Your task to perform on an android device: open app "Google Pay: Save, Pay, Manage" (install if not already installed) Image 0: 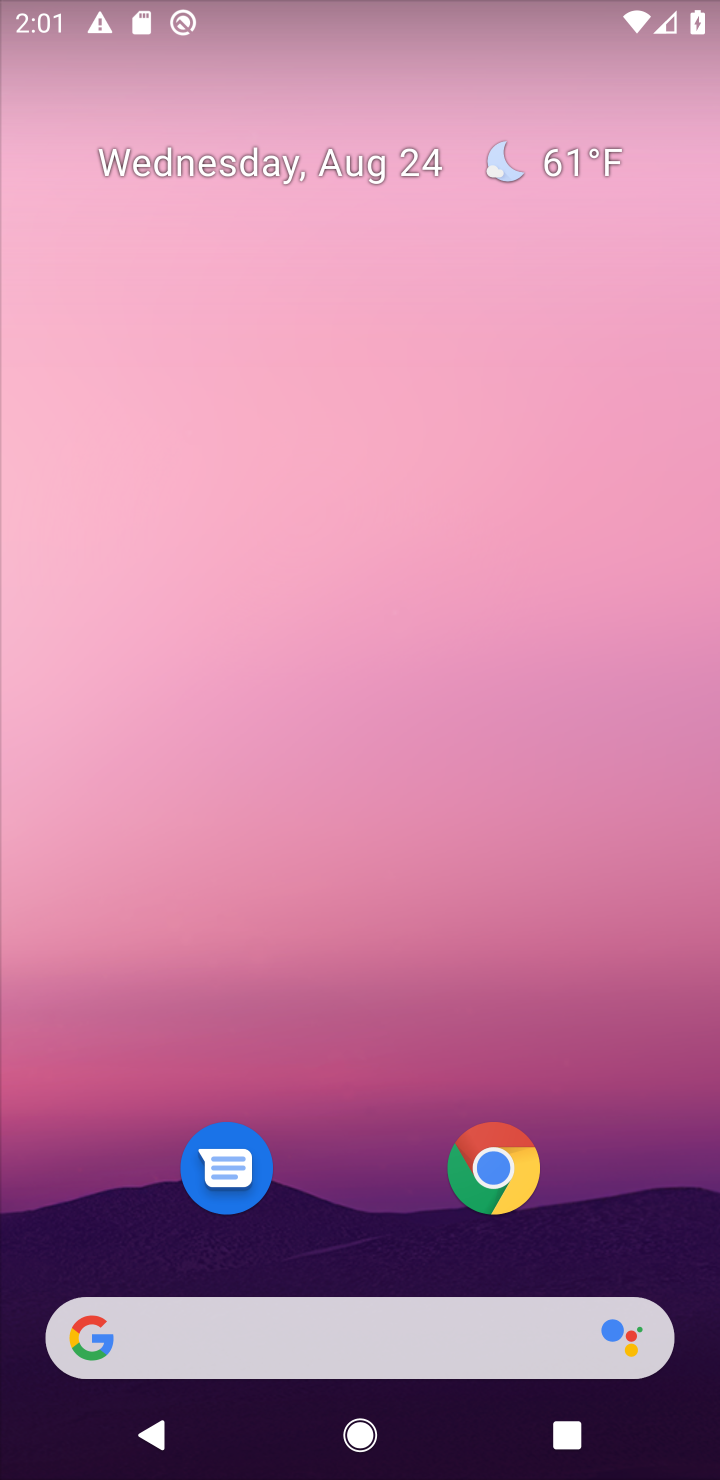
Step 0: drag from (609, 406) to (605, 109)
Your task to perform on an android device: open app "Google Pay: Save, Pay, Manage" (install if not already installed) Image 1: 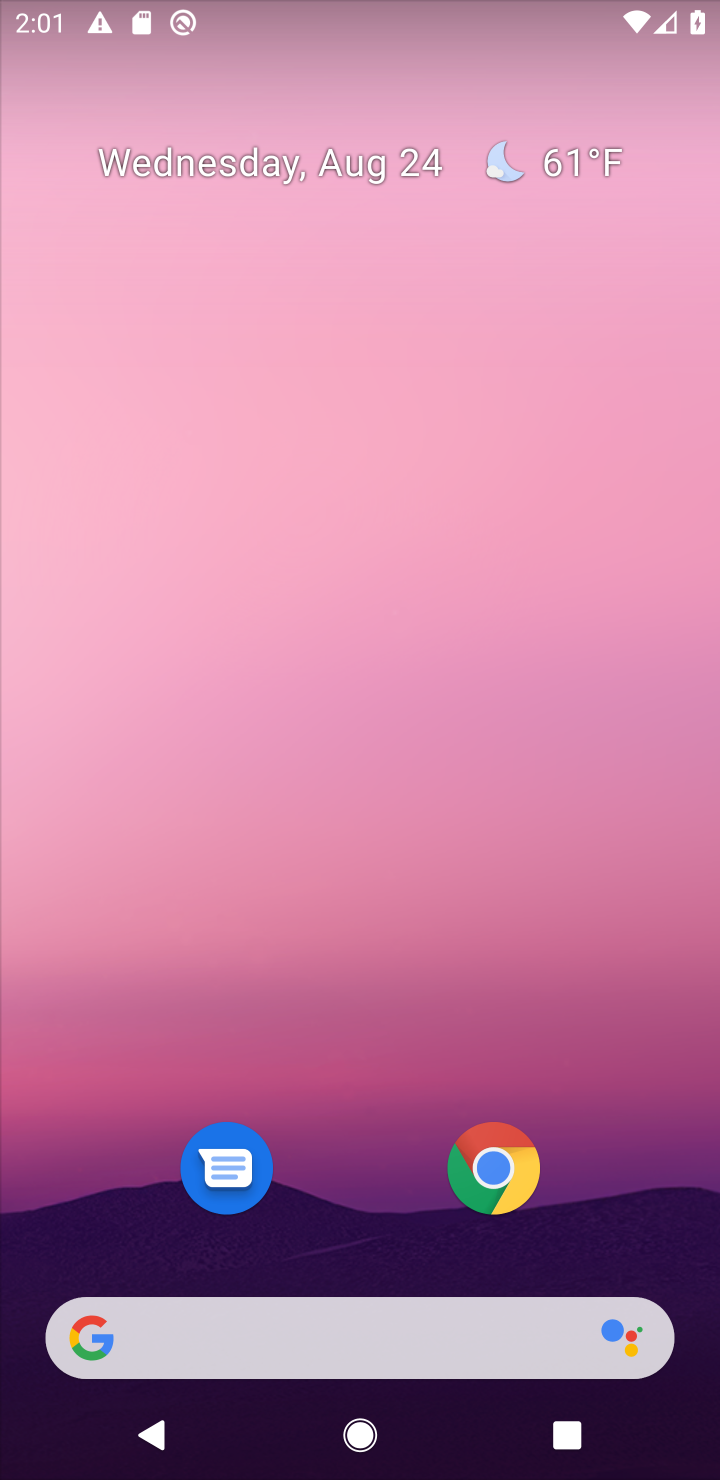
Step 1: drag from (646, 1239) to (597, 283)
Your task to perform on an android device: open app "Google Pay: Save, Pay, Manage" (install if not already installed) Image 2: 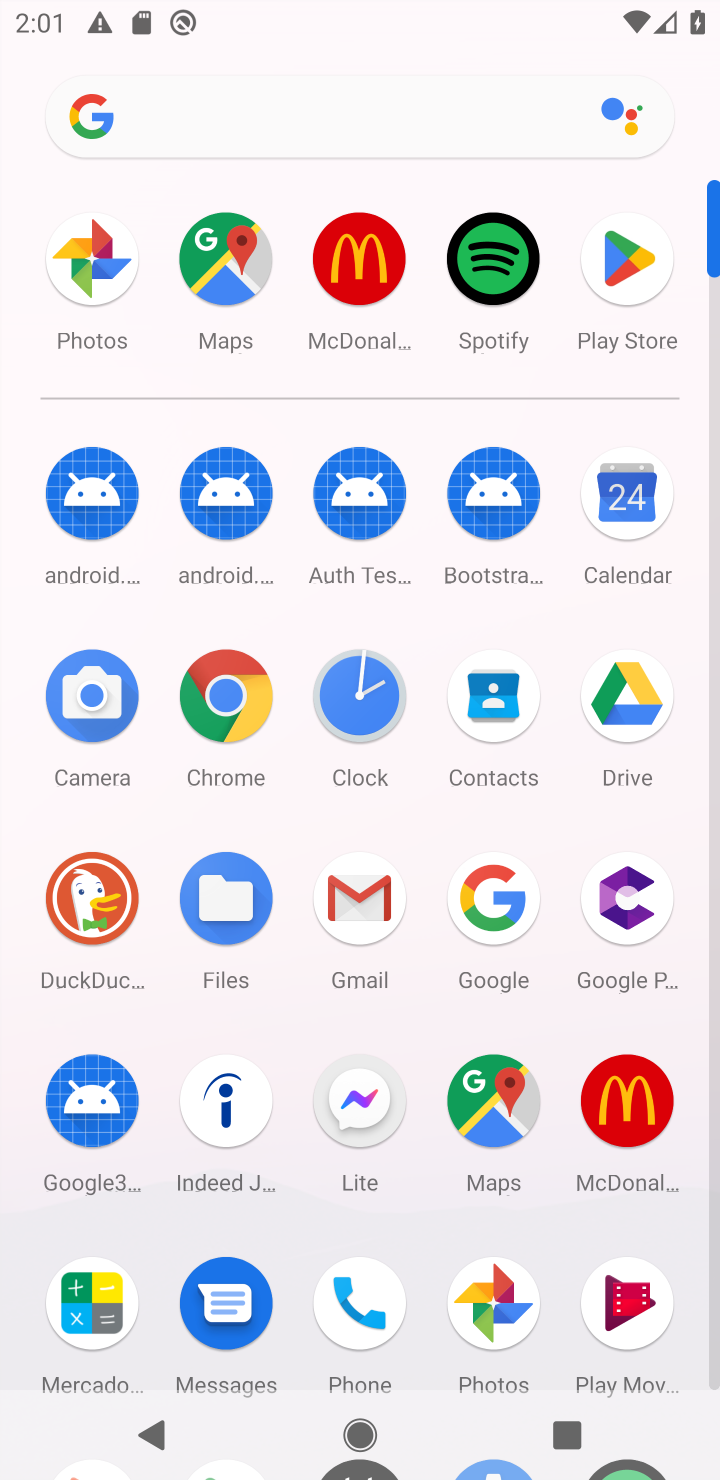
Step 2: click (630, 255)
Your task to perform on an android device: open app "Google Pay: Save, Pay, Manage" (install if not already installed) Image 3: 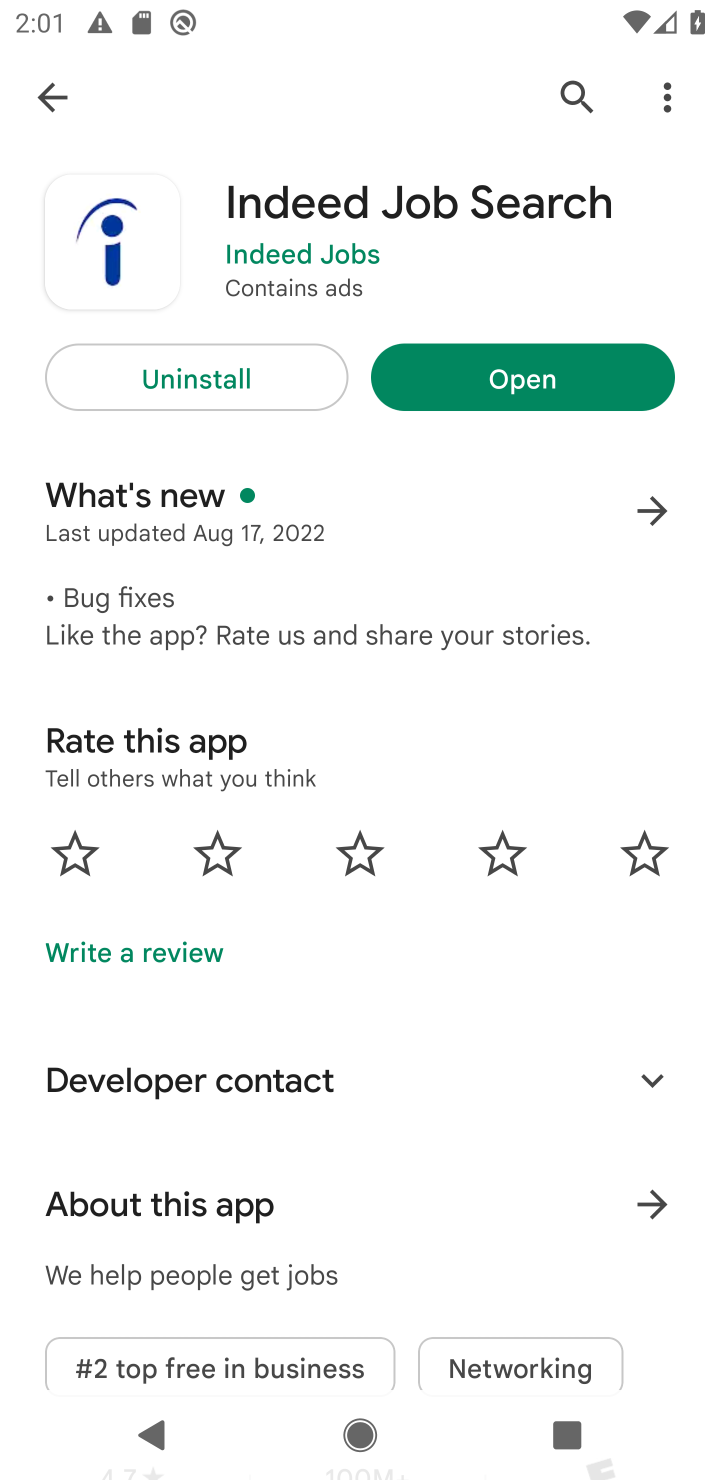
Step 3: click (566, 88)
Your task to perform on an android device: open app "Google Pay: Save, Pay, Manage" (install if not already installed) Image 4: 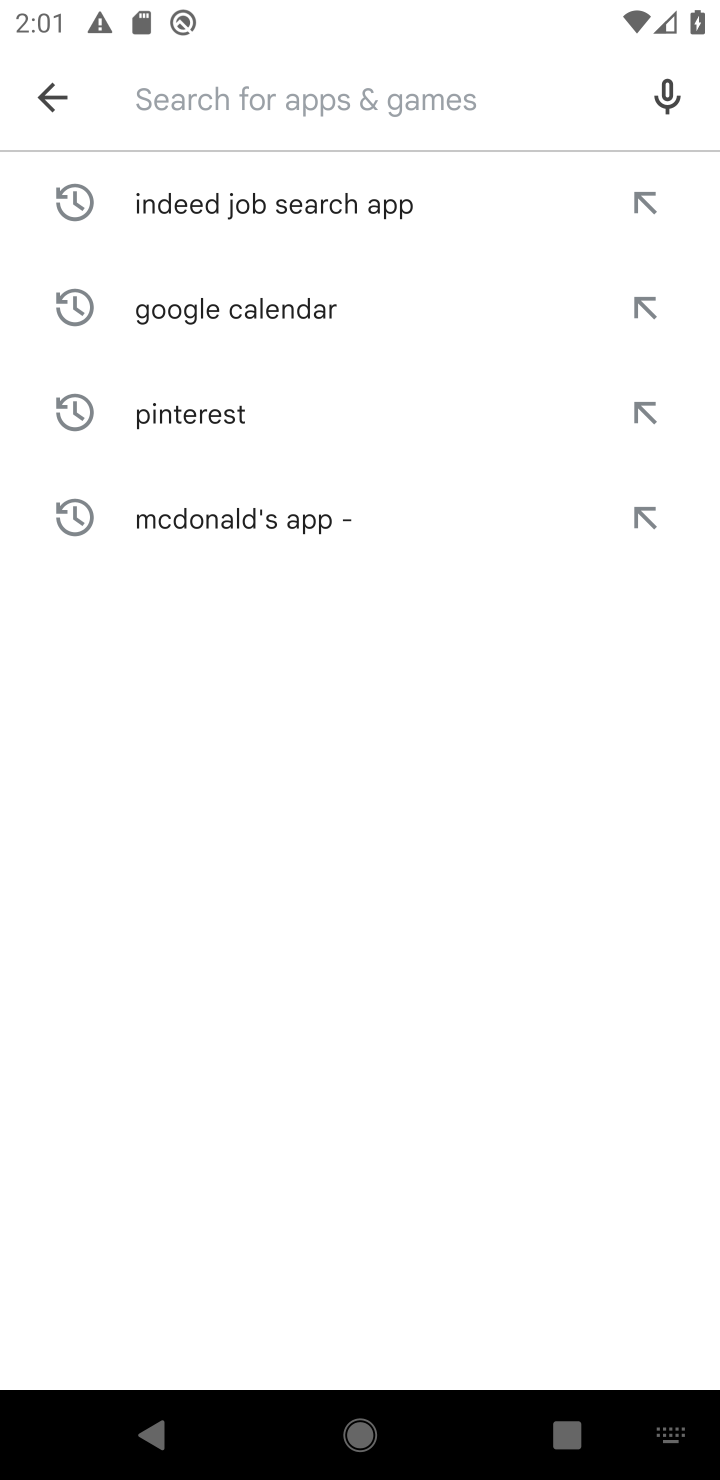
Step 4: type "Google Pay: Save, Pay, Manage"
Your task to perform on an android device: open app "Google Pay: Save, Pay, Manage" (install if not already installed) Image 5: 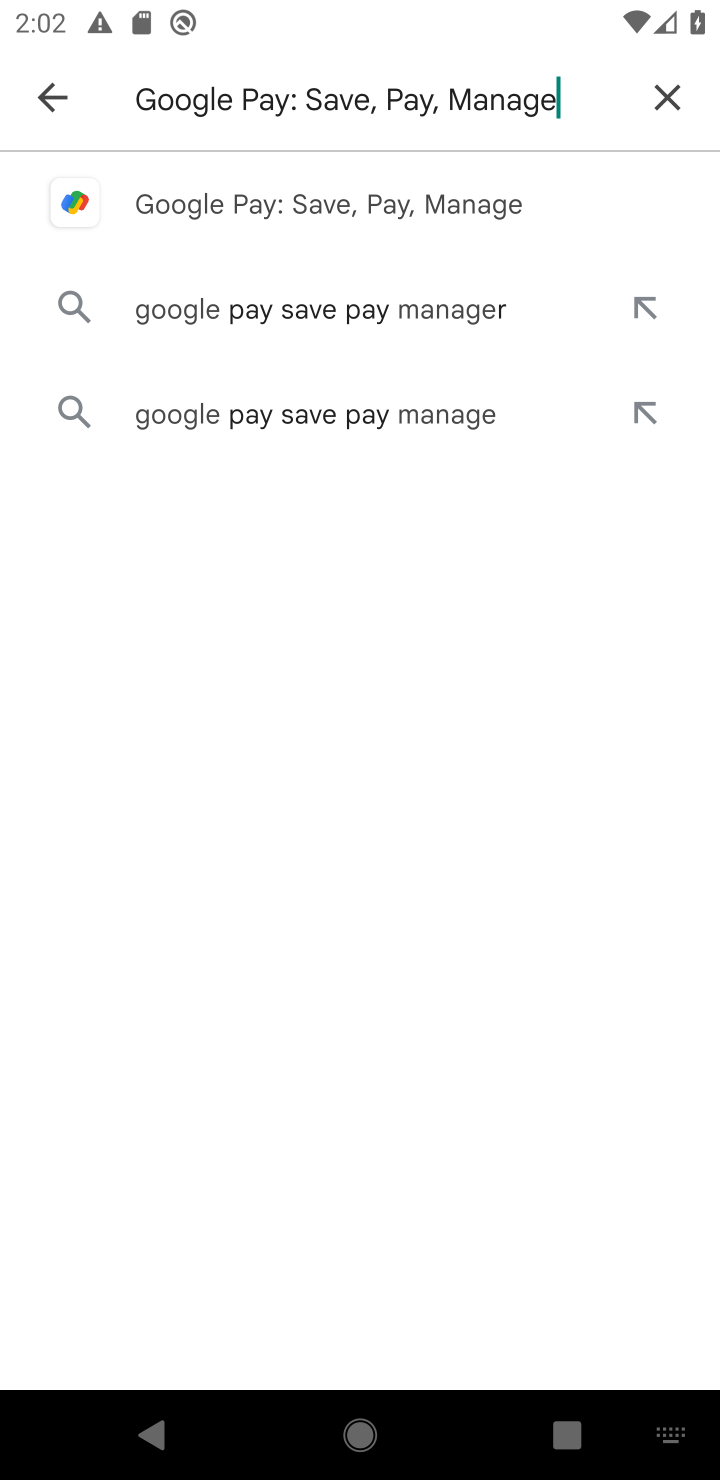
Step 5: click (198, 186)
Your task to perform on an android device: open app "Google Pay: Save, Pay, Manage" (install if not already installed) Image 6: 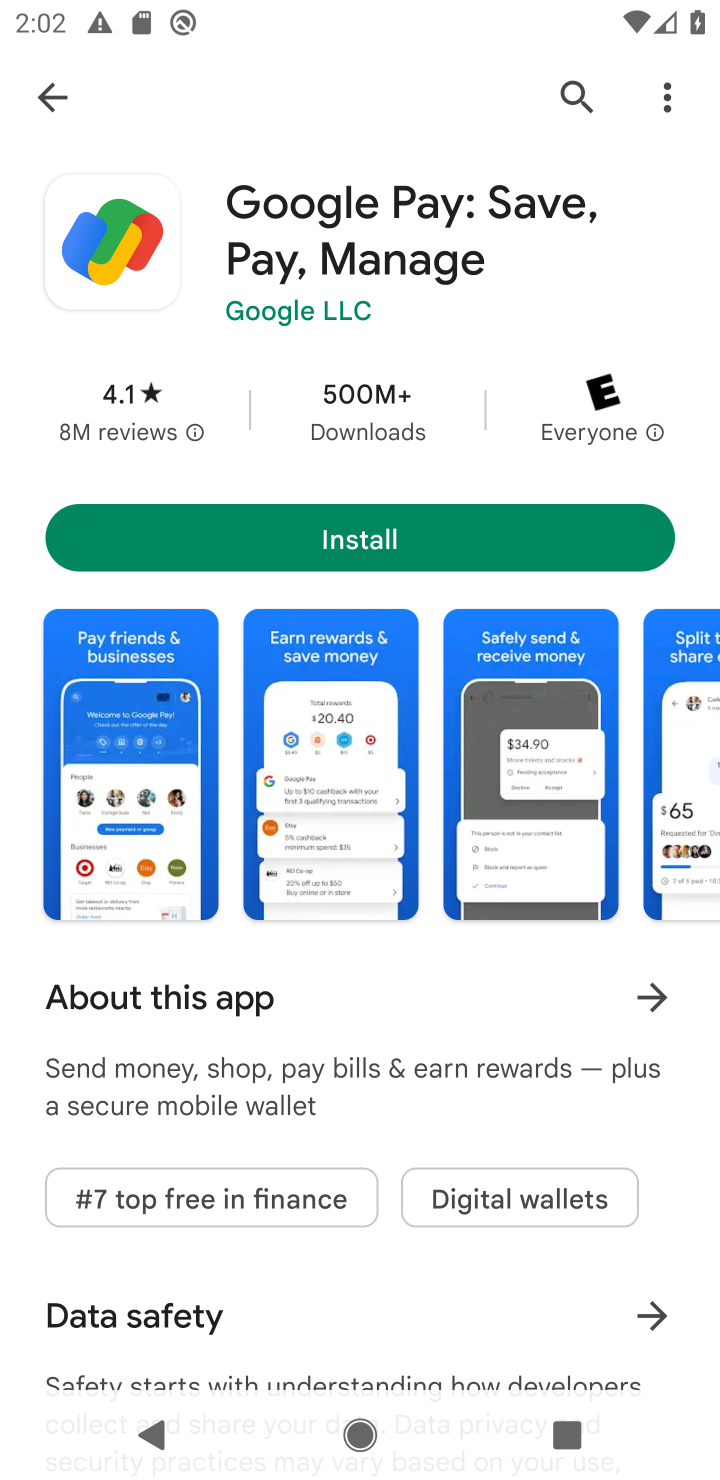
Step 6: click (346, 532)
Your task to perform on an android device: open app "Google Pay: Save, Pay, Manage" (install if not already installed) Image 7: 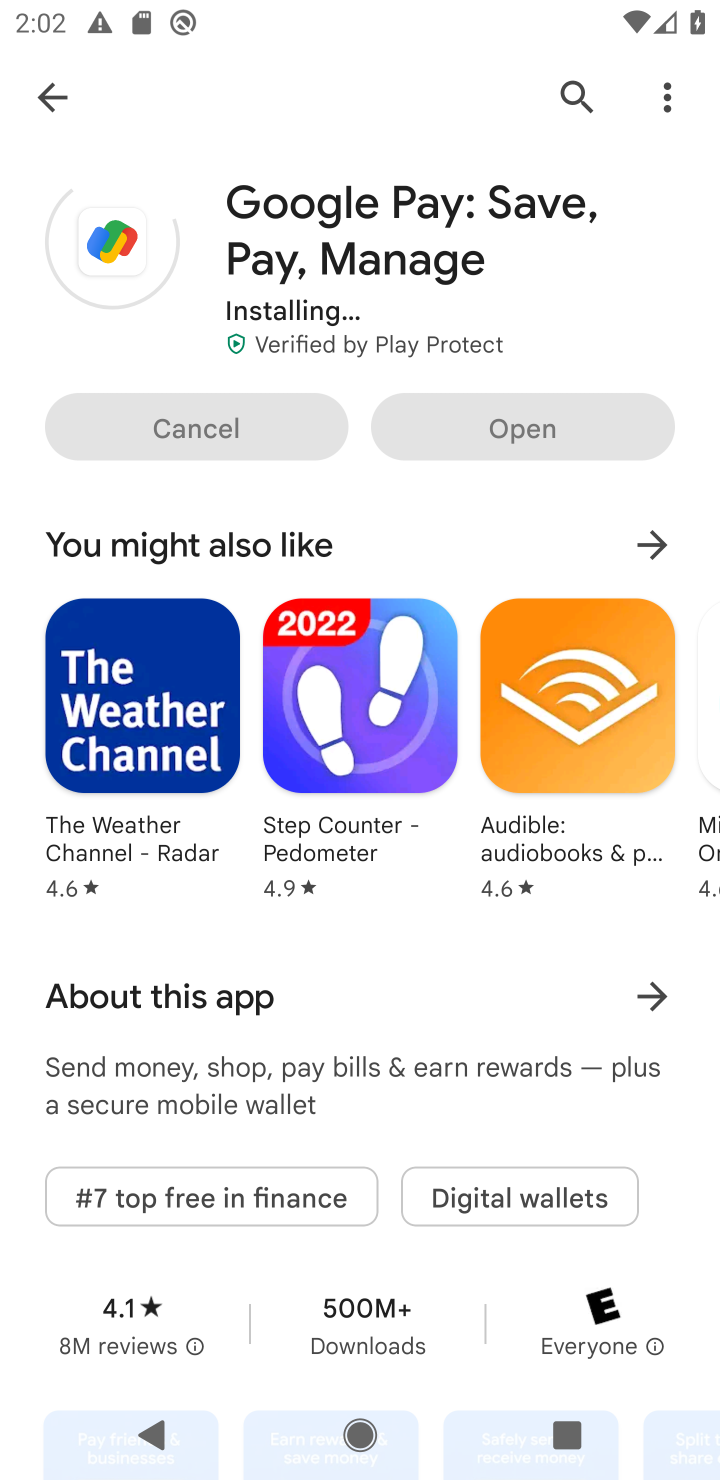
Step 7: click (362, 257)
Your task to perform on an android device: open app "Google Pay: Save, Pay, Manage" (install if not already installed) Image 8: 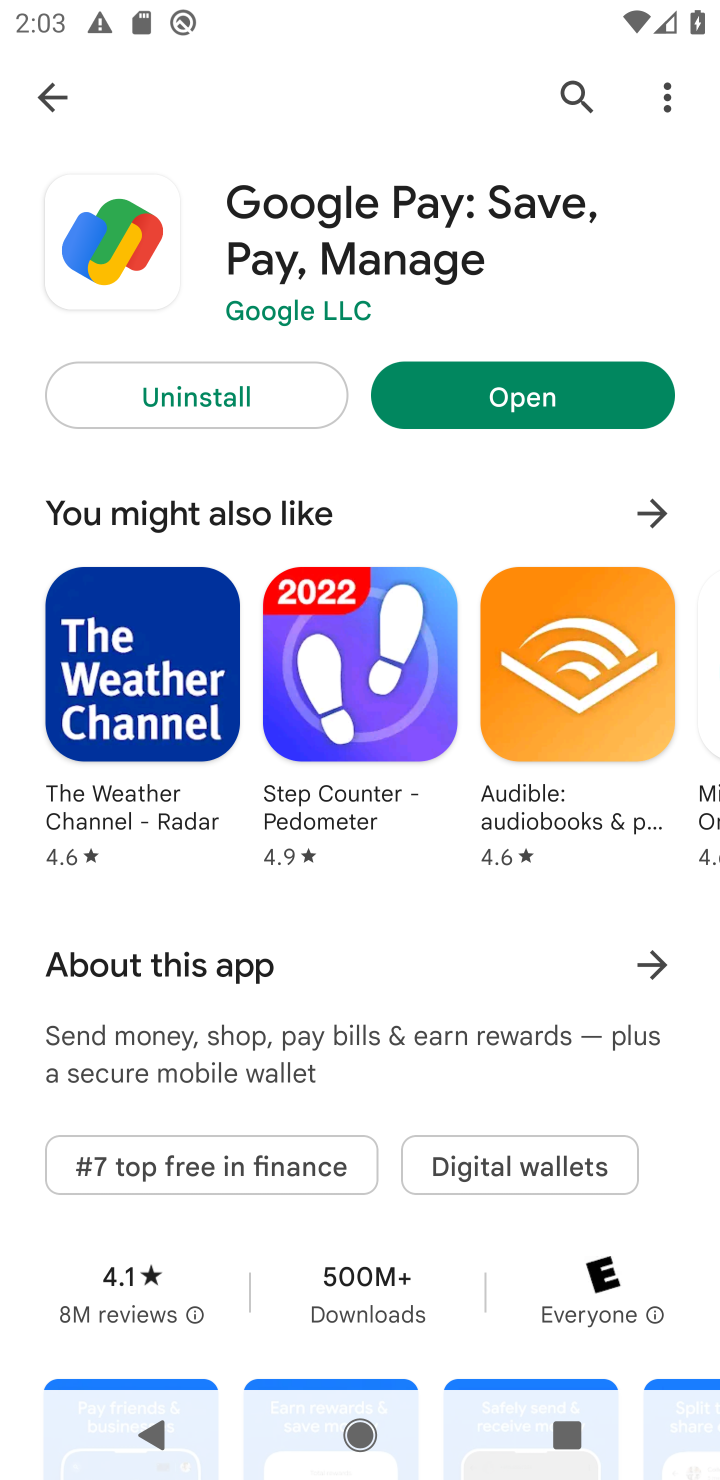
Step 8: click (490, 395)
Your task to perform on an android device: open app "Google Pay: Save, Pay, Manage" (install if not already installed) Image 9: 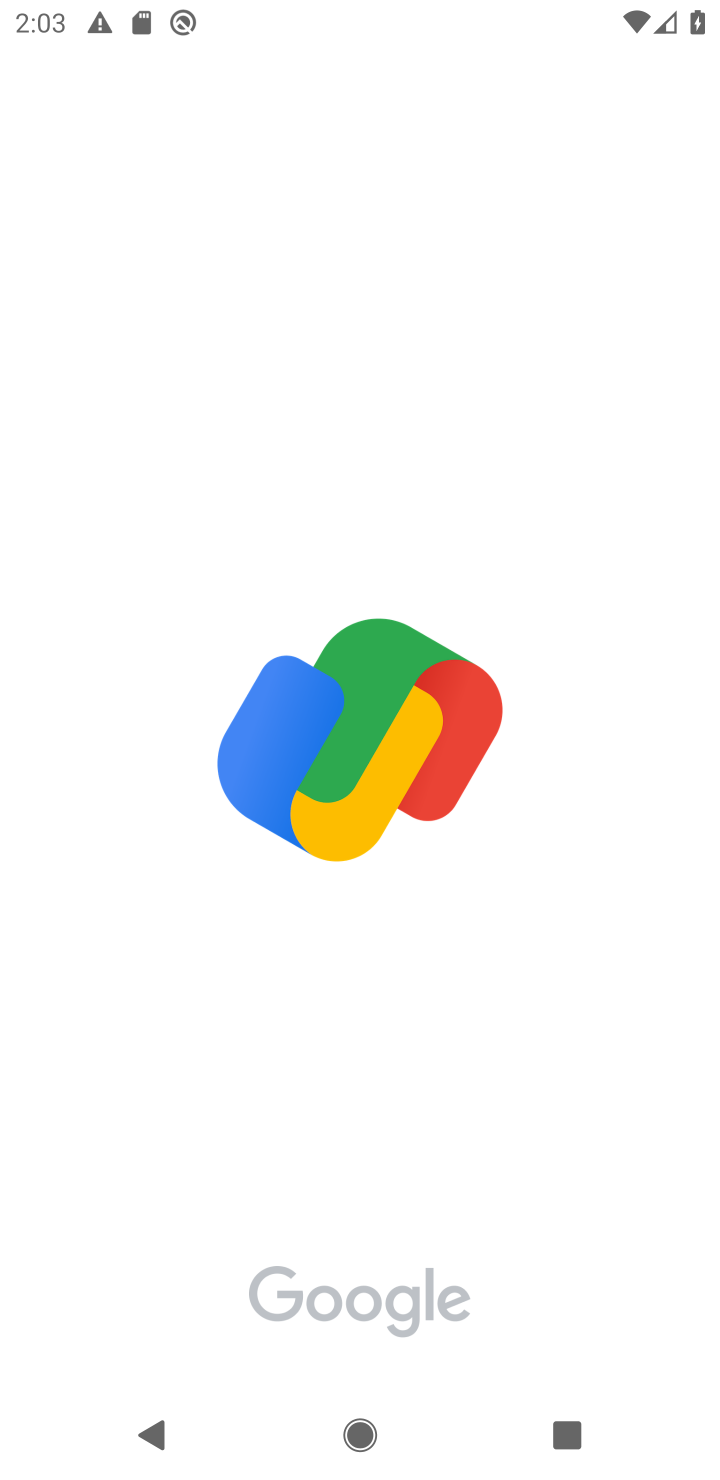
Step 9: task complete